Your task to perform on an android device: Find coffee shops on Maps Image 0: 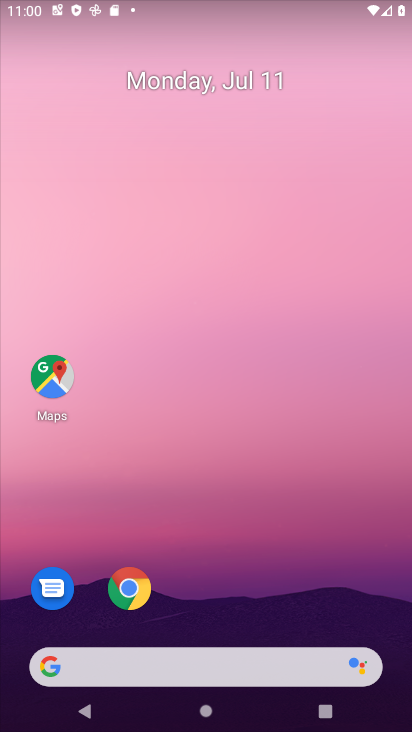
Step 0: click (64, 386)
Your task to perform on an android device: Find coffee shops on Maps Image 1: 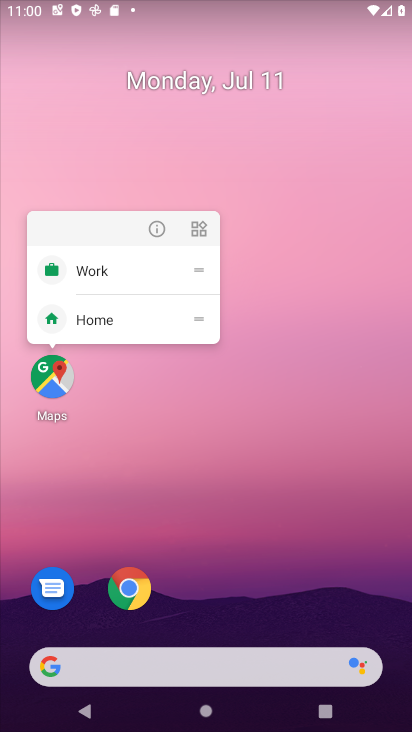
Step 1: click (61, 380)
Your task to perform on an android device: Find coffee shops on Maps Image 2: 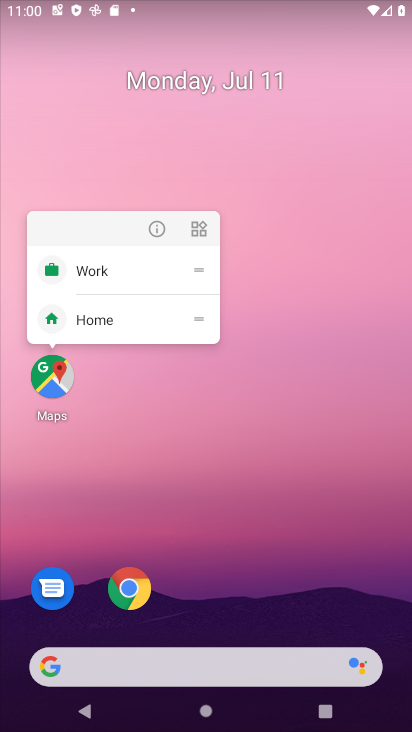
Step 2: click (61, 380)
Your task to perform on an android device: Find coffee shops on Maps Image 3: 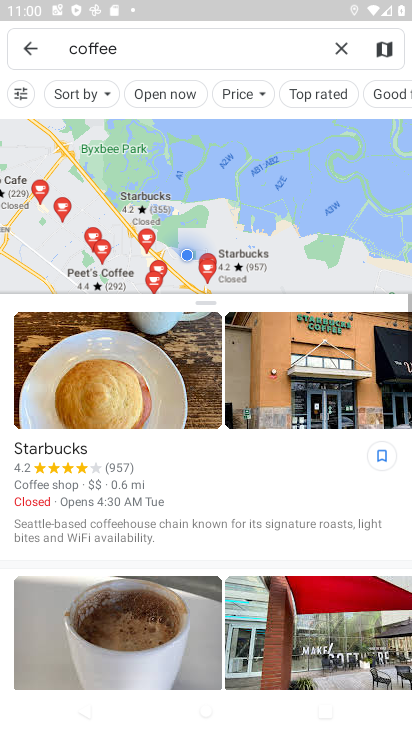
Step 3: click (291, 47)
Your task to perform on an android device: Find coffee shops on Maps Image 4: 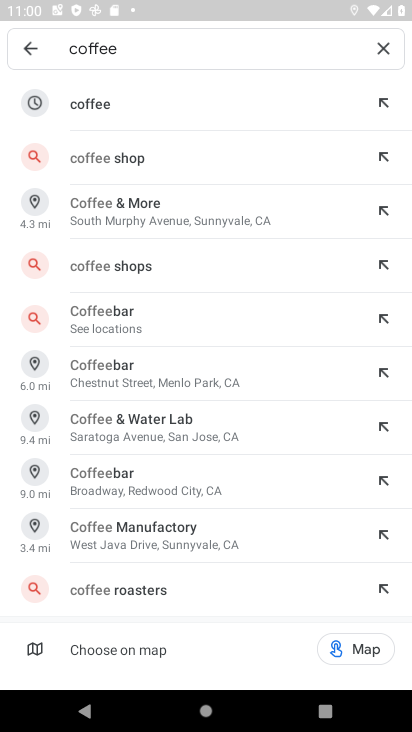
Step 4: click (268, 166)
Your task to perform on an android device: Find coffee shops on Maps Image 5: 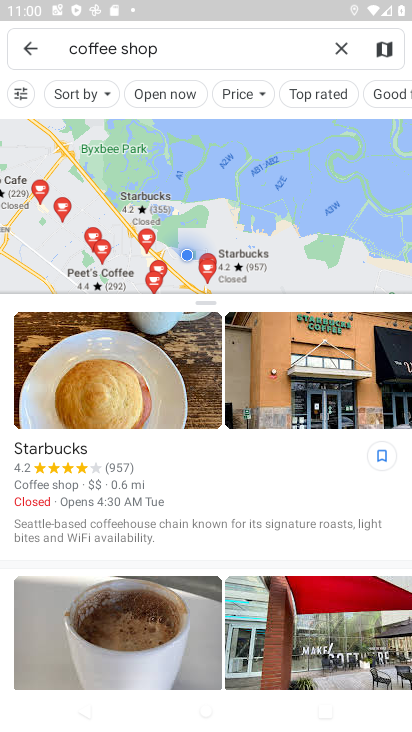
Step 5: task complete